Your task to perform on an android device: delete location history Image 0: 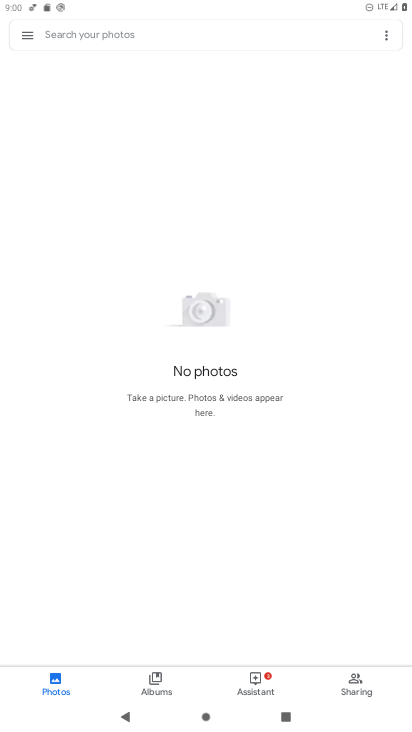
Step 0: press home button
Your task to perform on an android device: delete location history Image 1: 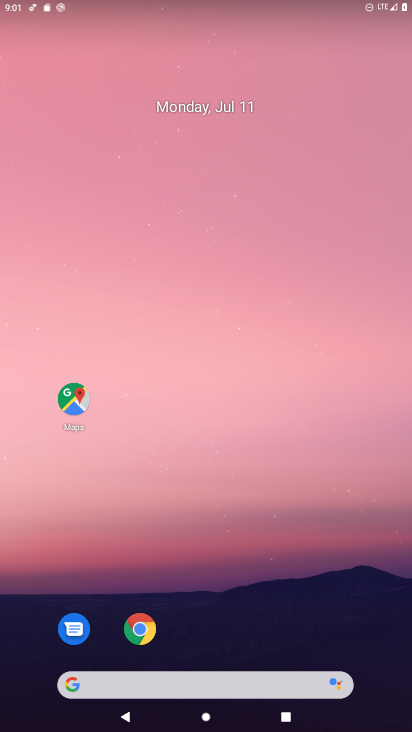
Step 1: click (68, 390)
Your task to perform on an android device: delete location history Image 2: 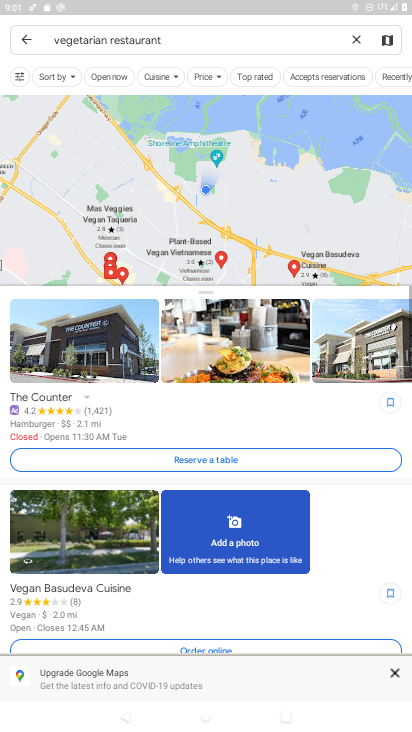
Step 2: click (31, 32)
Your task to perform on an android device: delete location history Image 3: 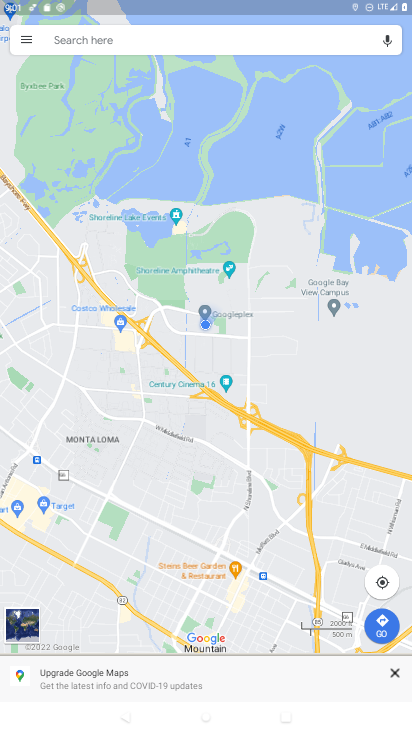
Step 3: click (31, 32)
Your task to perform on an android device: delete location history Image 4: 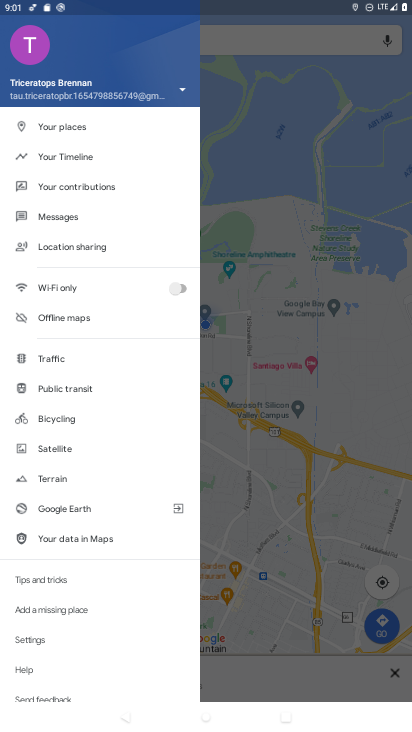
Step 4: click (160, 147)
Your task to perform on an android device: delete location history Image 5: 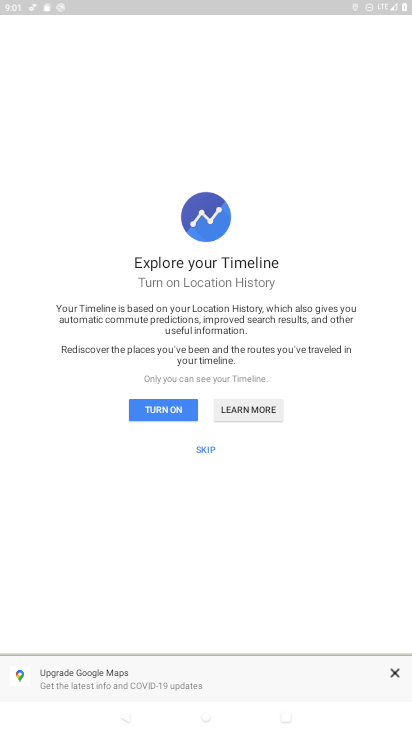
Step 5: click (139, 415)
Your task to perform on an android device: delete location history Image 6: 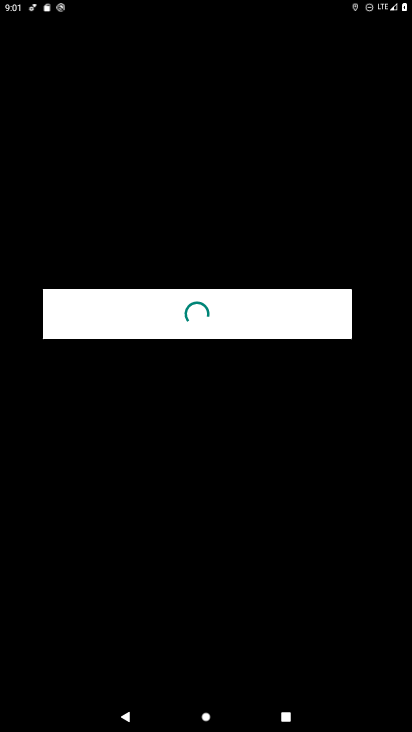
Step 6: click (399, 37)
Your task to perform on an android device: delete location history Image 7: 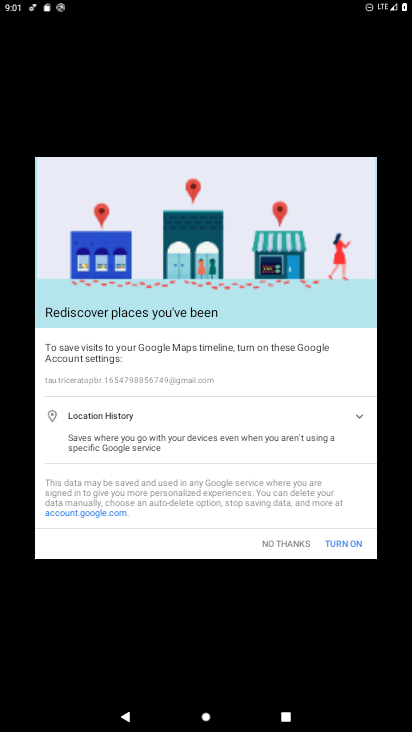
Step 7: click (355, 543)
Your task to perform on an android device: delete location history Image 8: 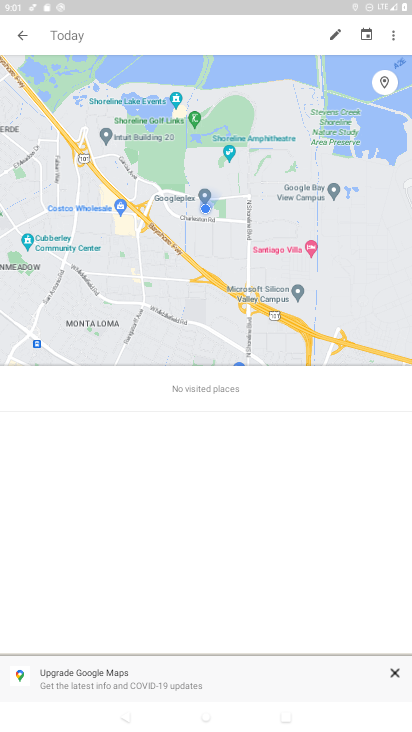
Step 8: click (395, 31)
Your task to perform on an android device: delete location history Image 9: 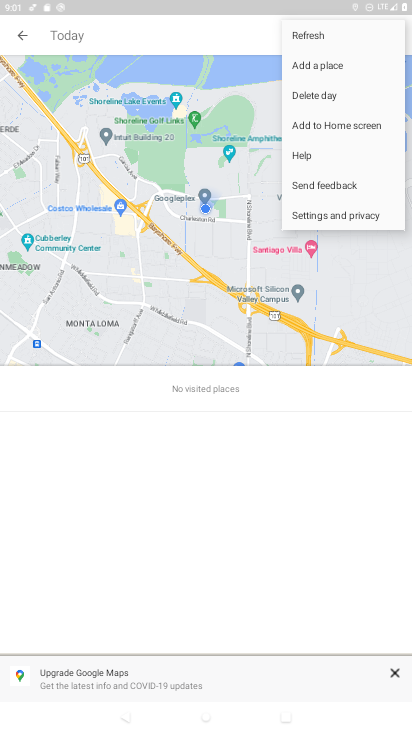
Step 9: click (346, 212)
Your task to perform on an android device: delete location history Image 10: 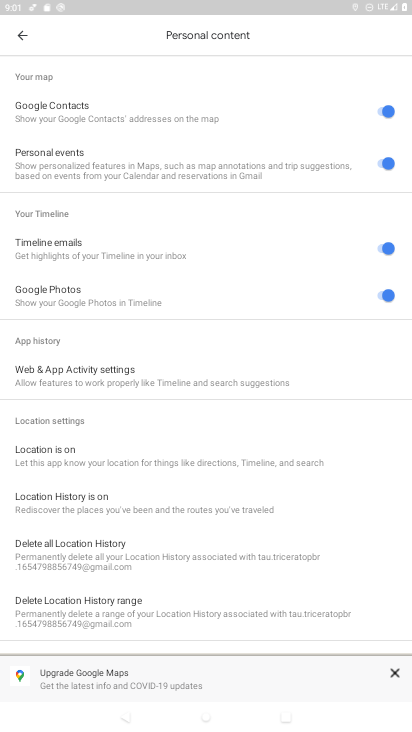
Step 10: click (72, 546)
Your task to perform on an android device: delete location history Image 11: 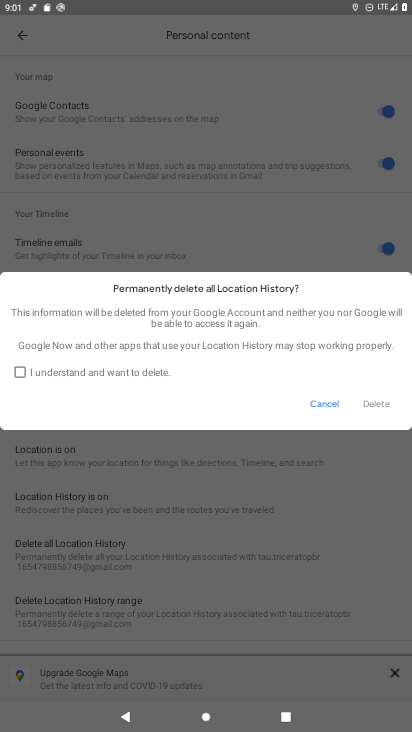
Step 11: click (21, 371)
Your task to perform on an android device: delete location history Image 12: 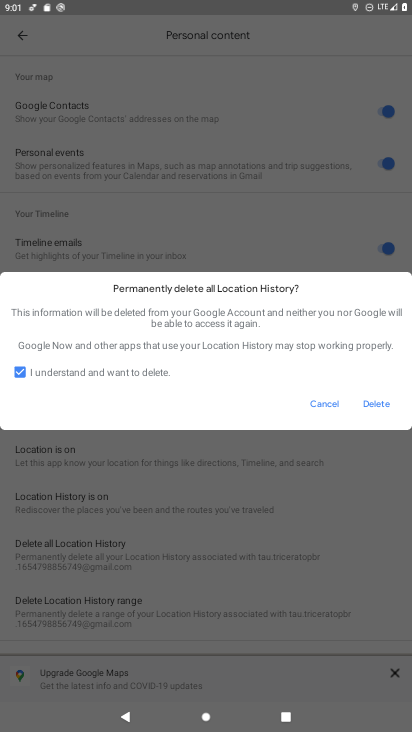
Step 12: click (370, 407)
Your task to perform on an android device: delete location history Image 13: 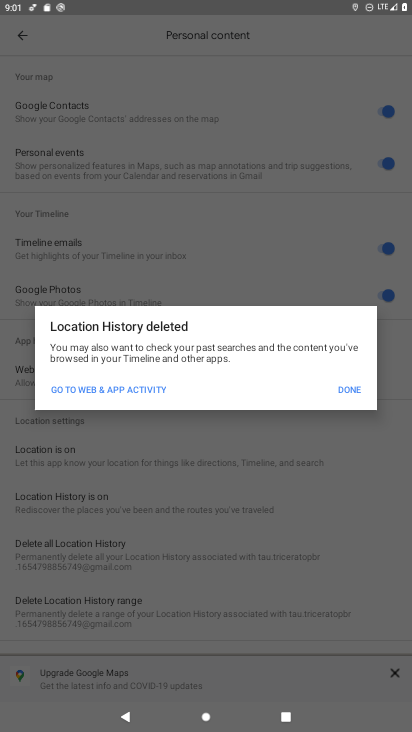
Step 13: click (340, 394)
Your task to perform on an android device: delete location history Image 14: 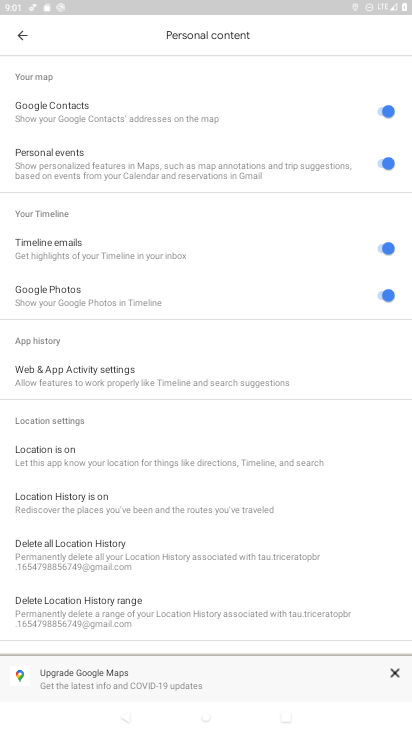
Step 14: task complete